Your task to perform on an android device: Go to location settings Image 0: 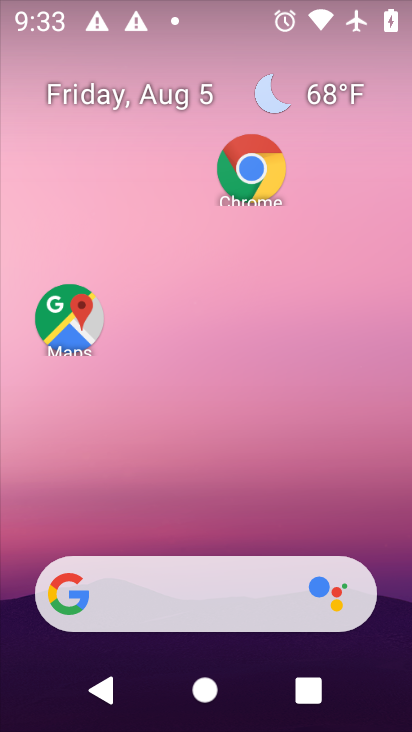
Step 0: drag from (201, 512) to (180, 116)
Your task to perform on an android device: Go to location settings Image 1: 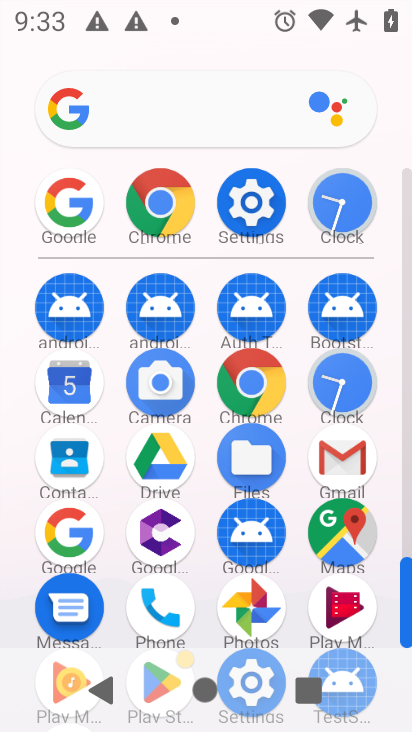
Step 1: click (237, 199)
Your task to perform on an android device: Go to location settings Image 2: 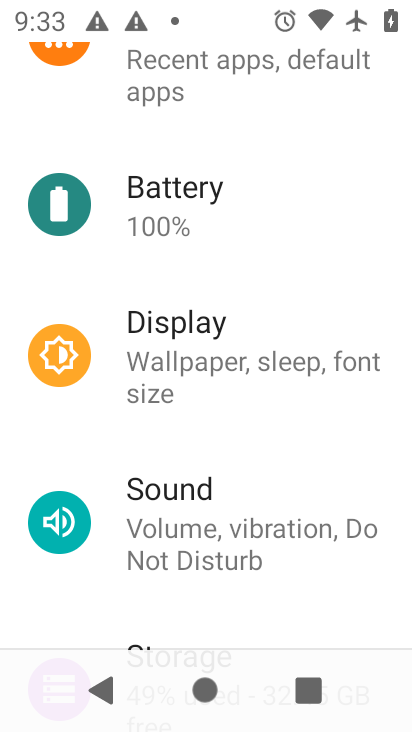
Step 2: drag from (224, 560) to (286, 195)
Your task to perform on an android device: Go to location settings Image 3: 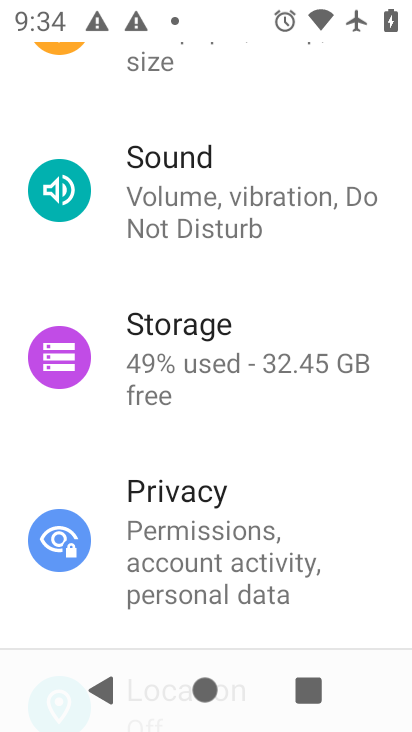
Step 3: drag from (224, 462) to (232, 106)
Your task to perform on an android device: Go to location settings Image 4: 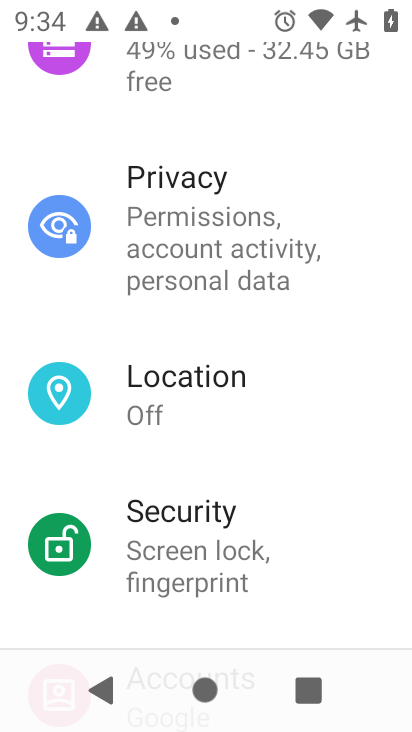
Step 4: click (201, 371)
Your task to perform on an android device: Go to location settings Image 5: 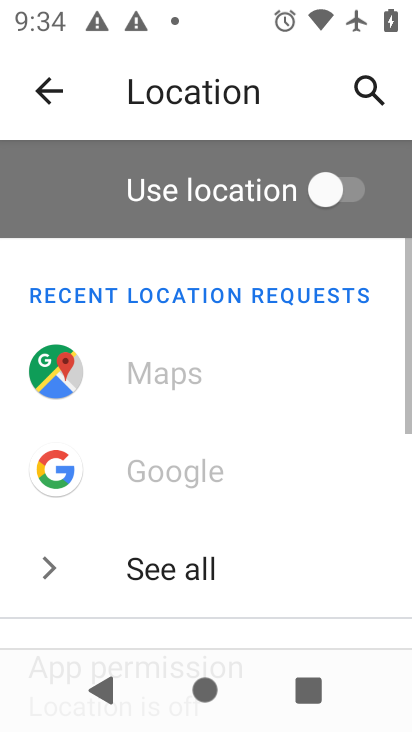
Step 5: task complete